Your task to perform on an android device: uninstall "Pandora - Music & Podcasts" Image 0: 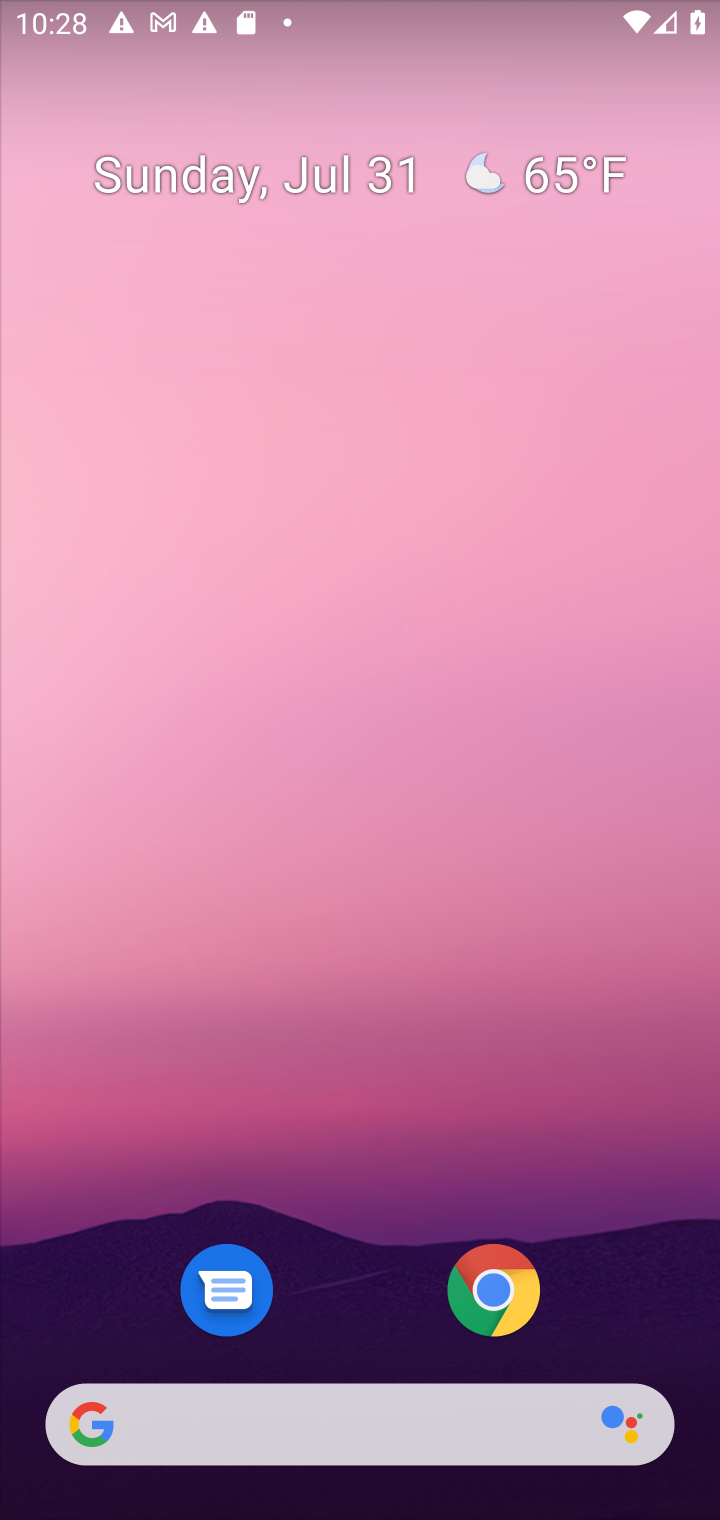
Step 0: press home button
Your task to perform on an android device: uninstall "Pandora - Music & Podcasts" Image 1: 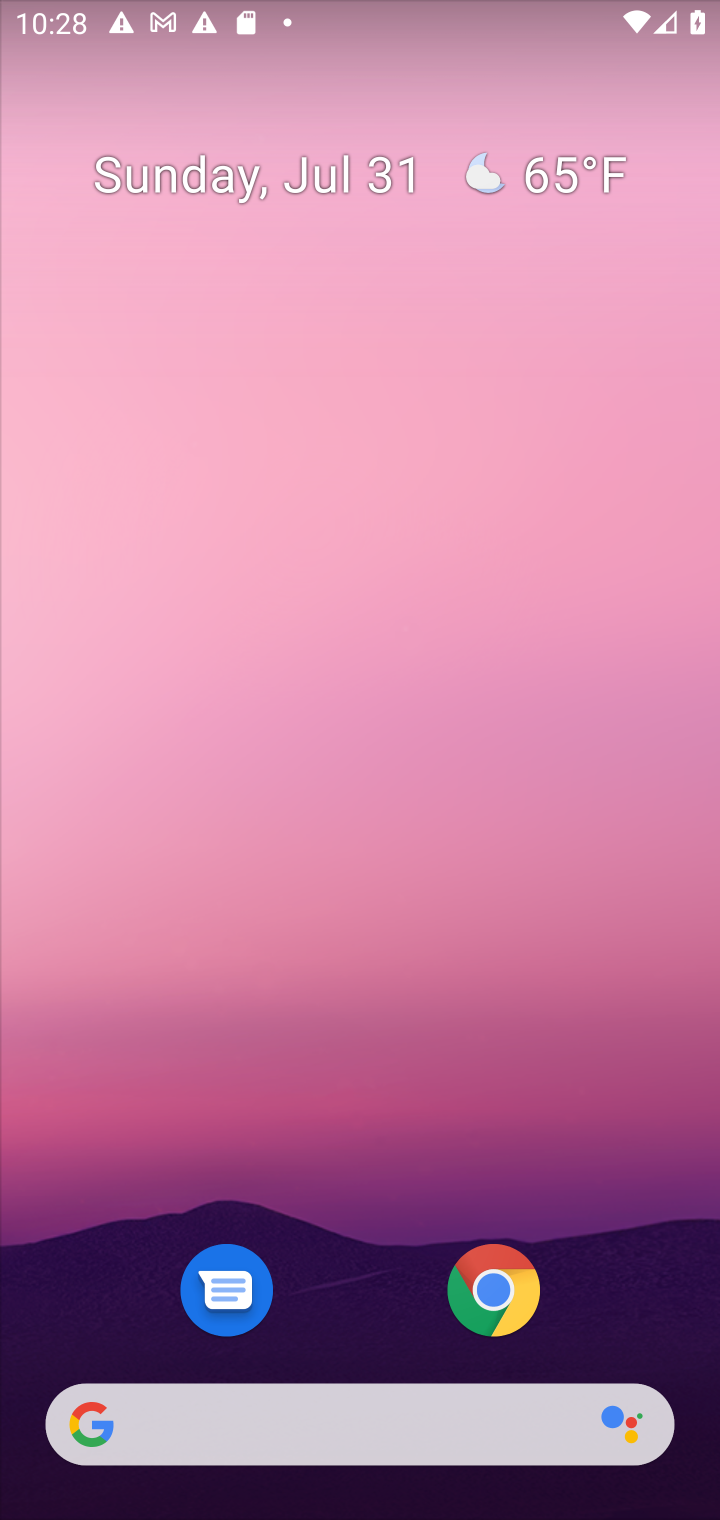
Step 1: drag from (613, 1329) to (618, 125)
Your task to perform on an android device: uninstall "Pandora - Music & Podcasts" Image 2: 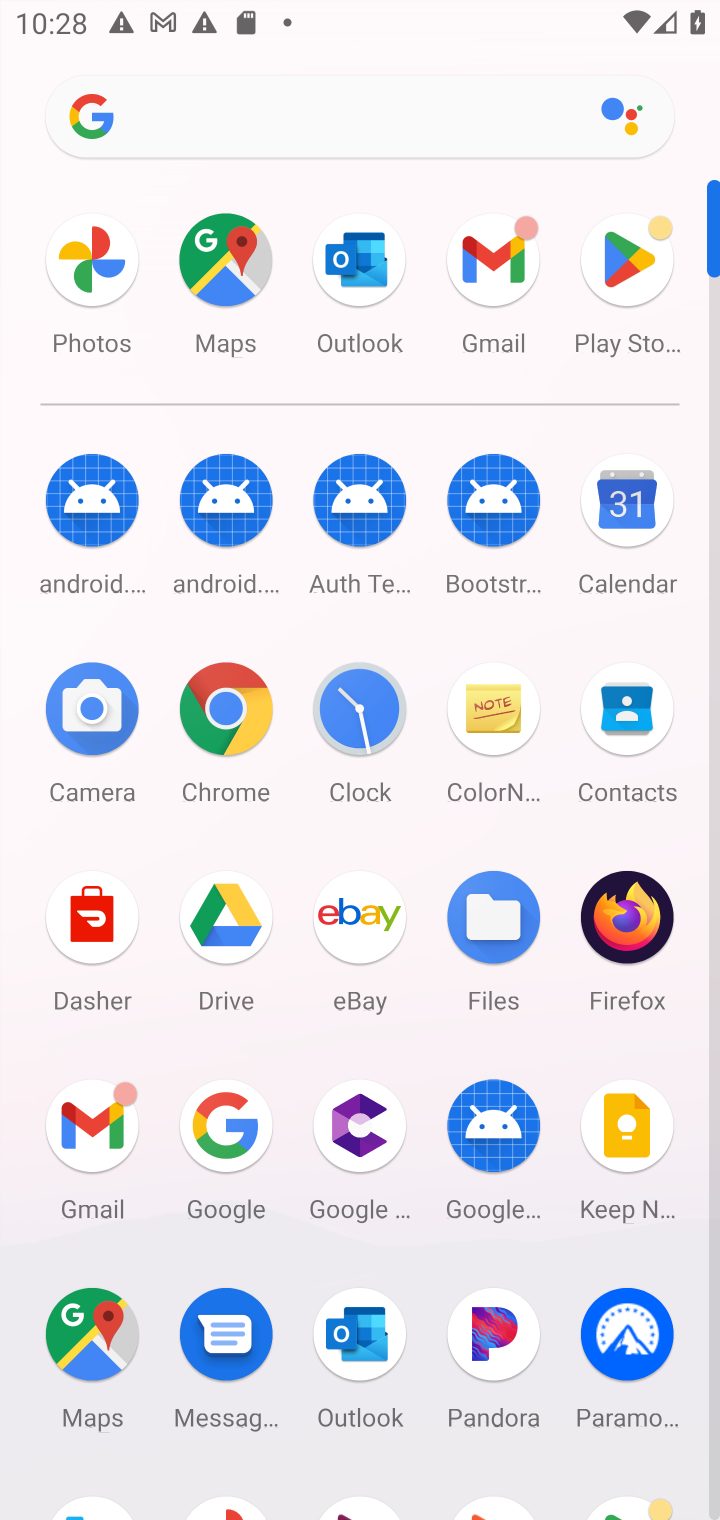
Step 2: click (622, 267)
Your task to perform on an android device: uninstall "Pandora - Music & Podcasts" Image 3: 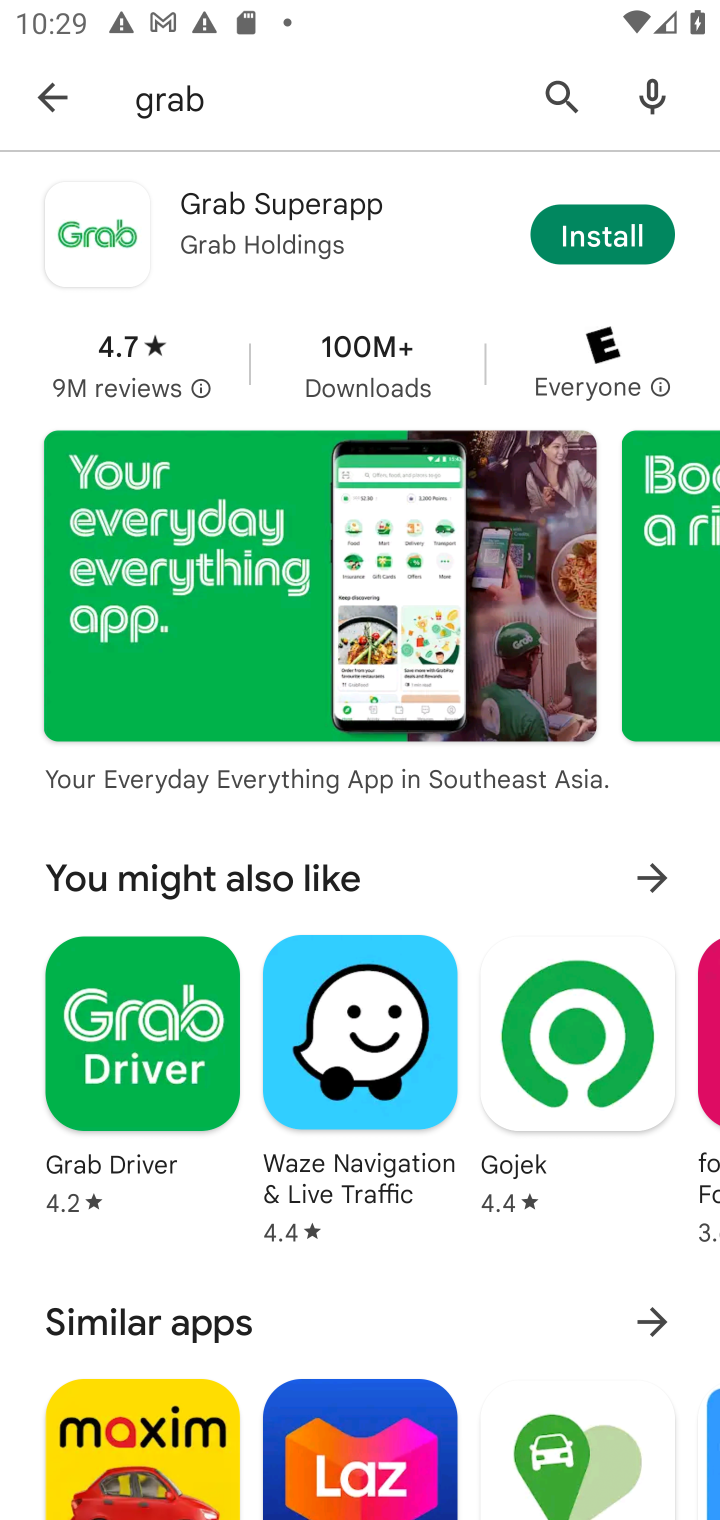
Step 3: click (553, 97)
Your task to perform on an android device: uninstall "Pandora - Music & Podcasts" Image 4: 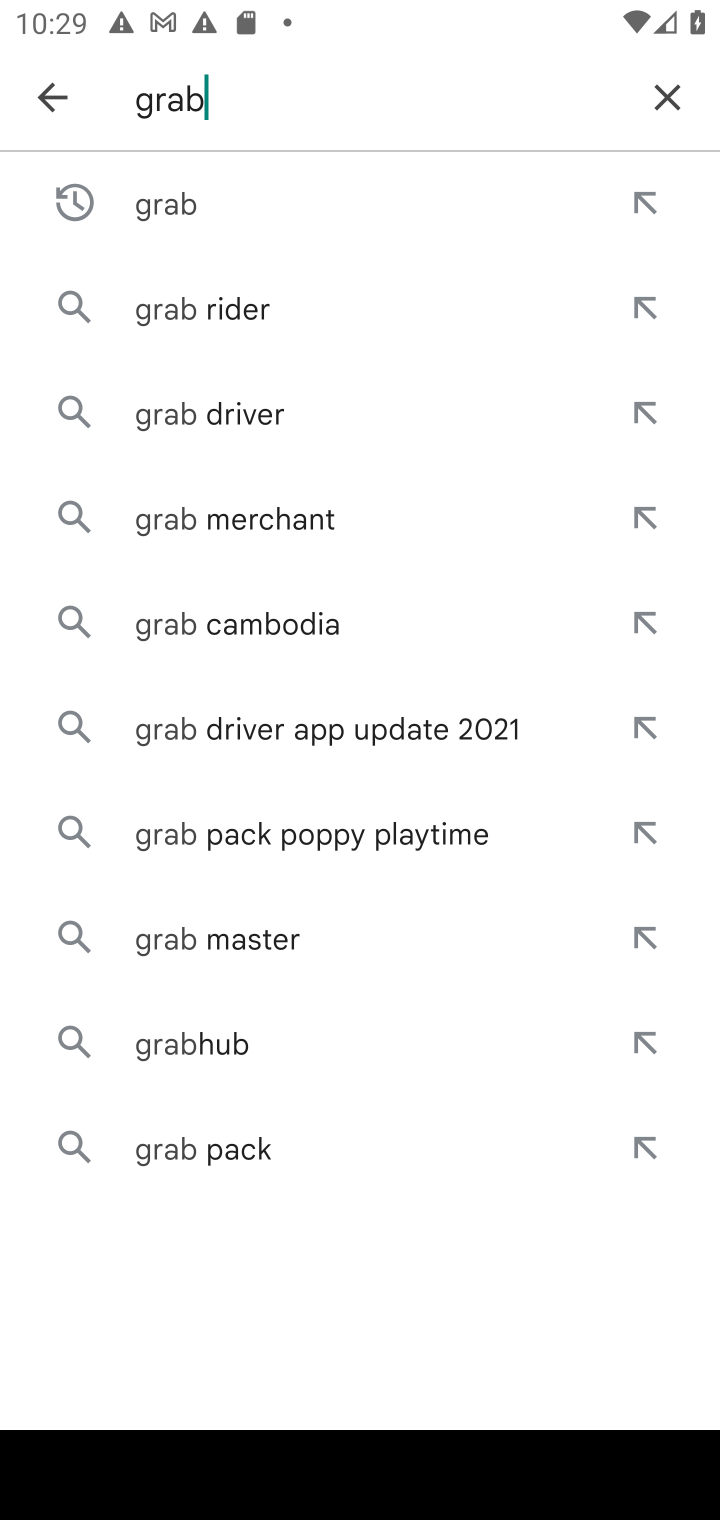
Step 4: click (669, 86)
Your task to perform on an android device: uninstall "Pandora - Music & Podcasts" Image 5: 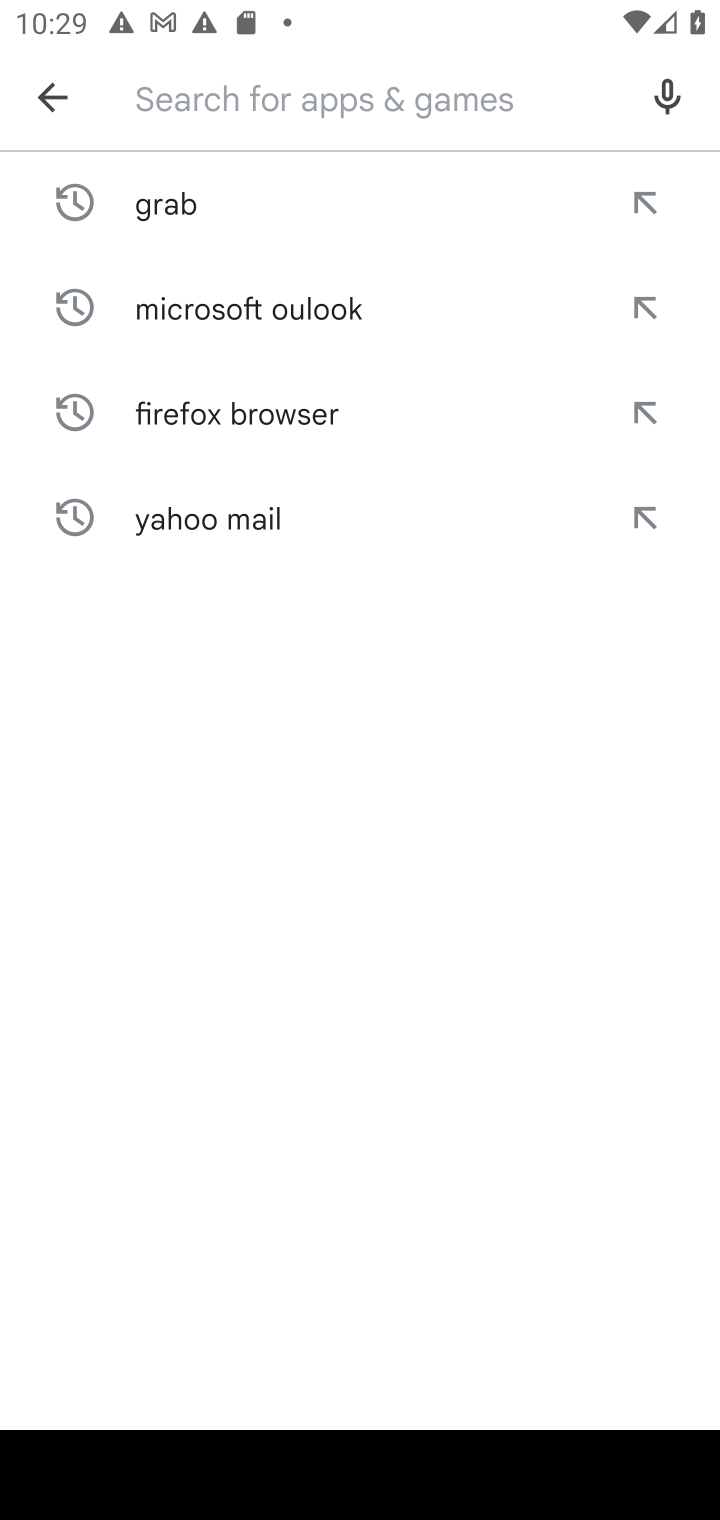
Step 5: type "ondora music prodcasts"
Your task to perform on an android device: uninstall "Pandora - Music & Podcasts" Image 6: 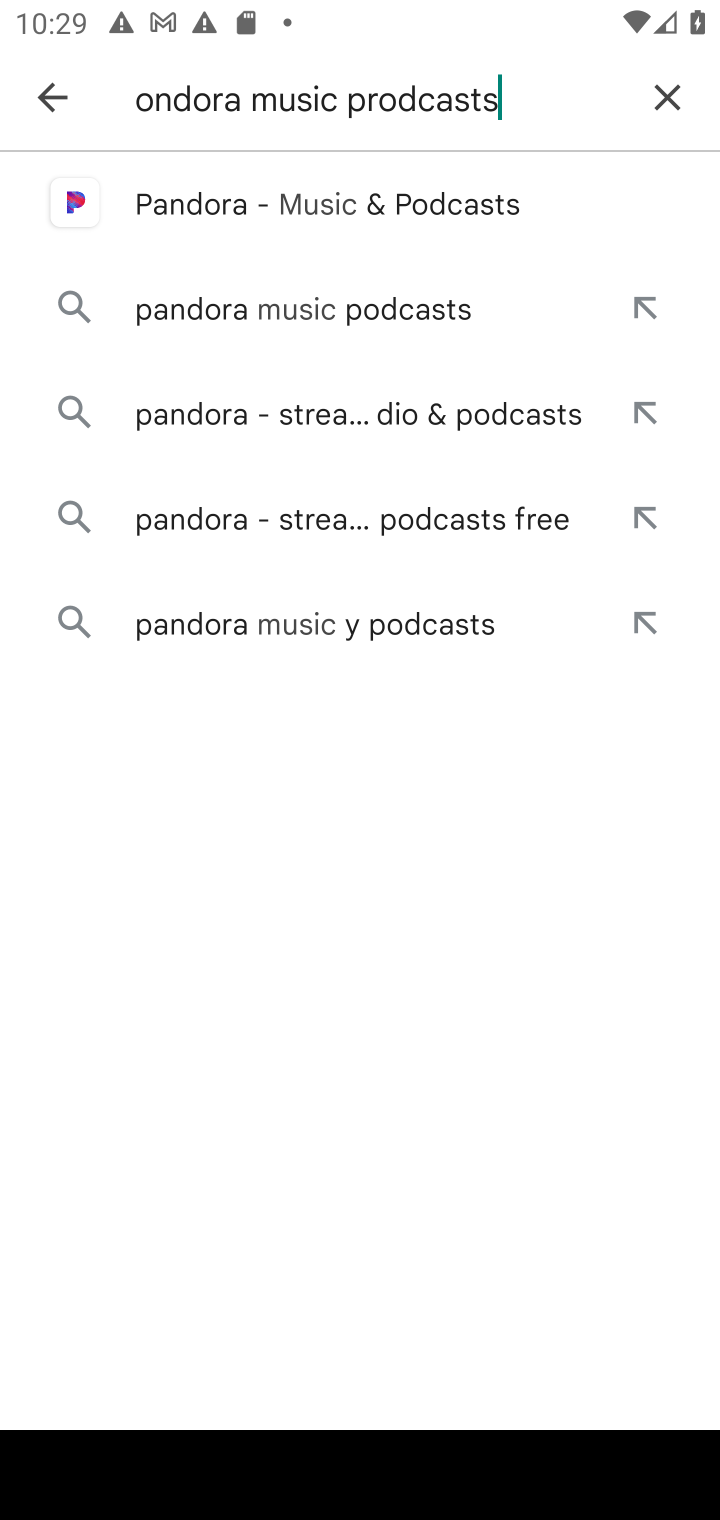
Step 6: click (388, 198)
Your task to perform on an android device: uninstall "Pandora - Music & Podcasts" Image 7: 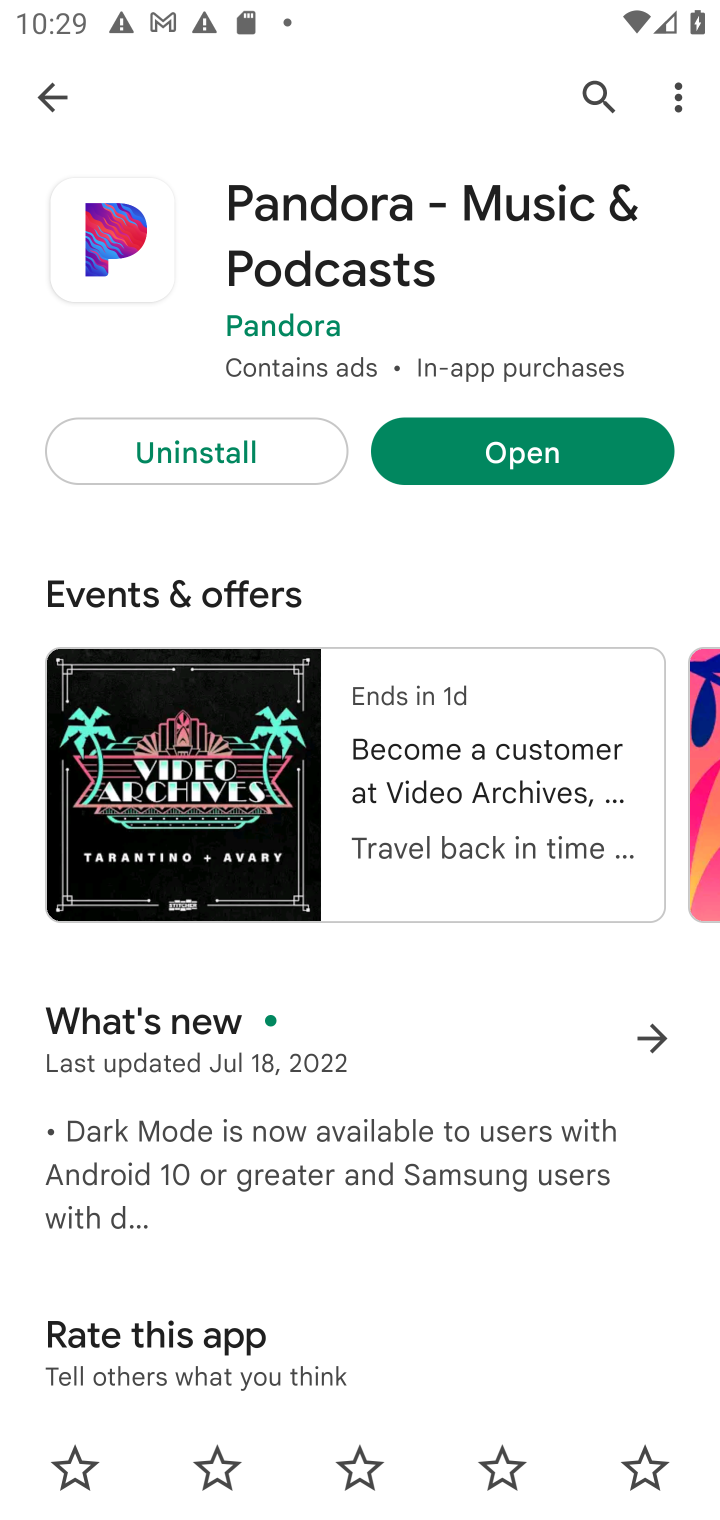
Step 7: click (250, 442)
Your task to perform on an android device: uninstall "Pandora - Music & Podcasts" Image 8: 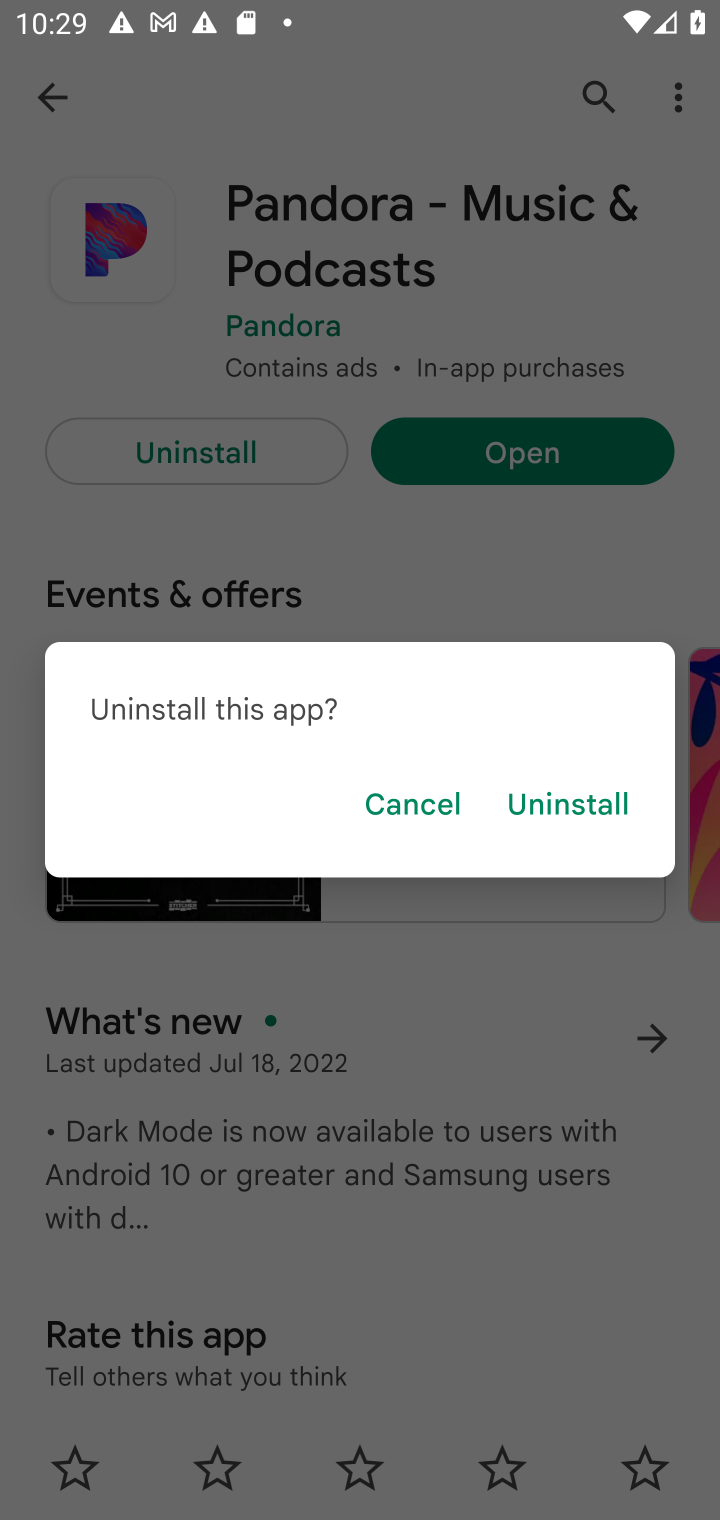
Step 8: click (579, 801)
Your task to perform on an android device: uninstall "Pandora - Music & Podcasts" Image 9: 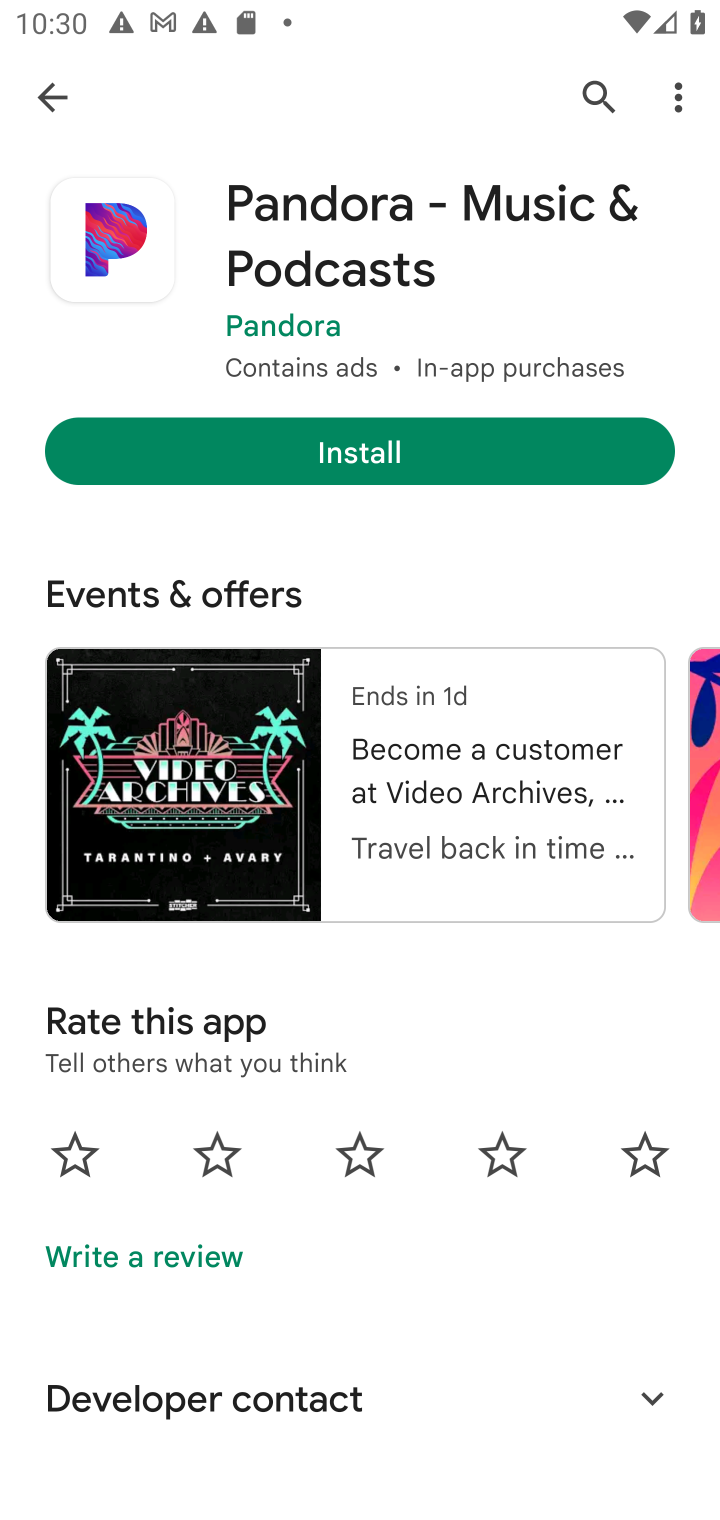
Step 9: task complete